Your task to perform on an android device: Open Google Chrome Image 0: 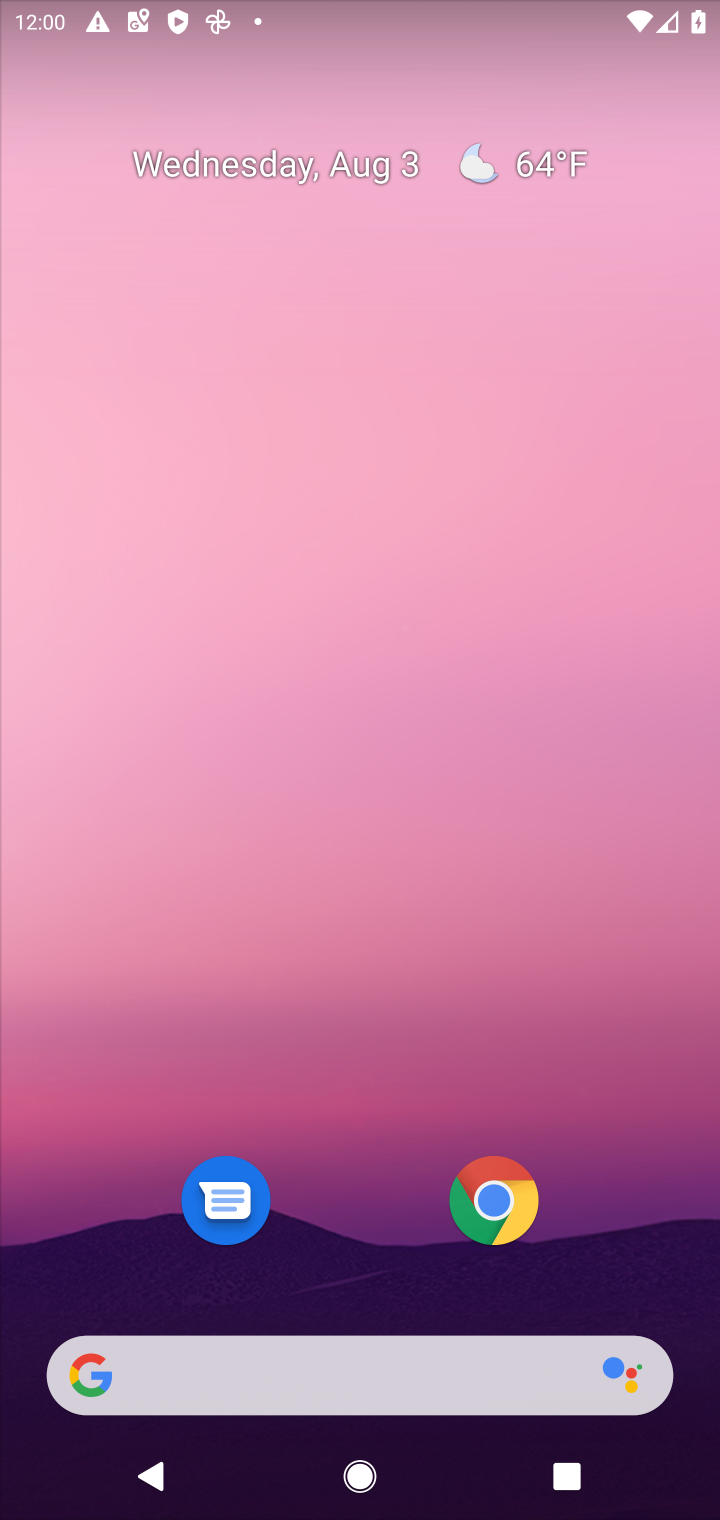
Step 0: click (492, 1204)
Your task to perform on an android device: Open Google Chrome Image 1: 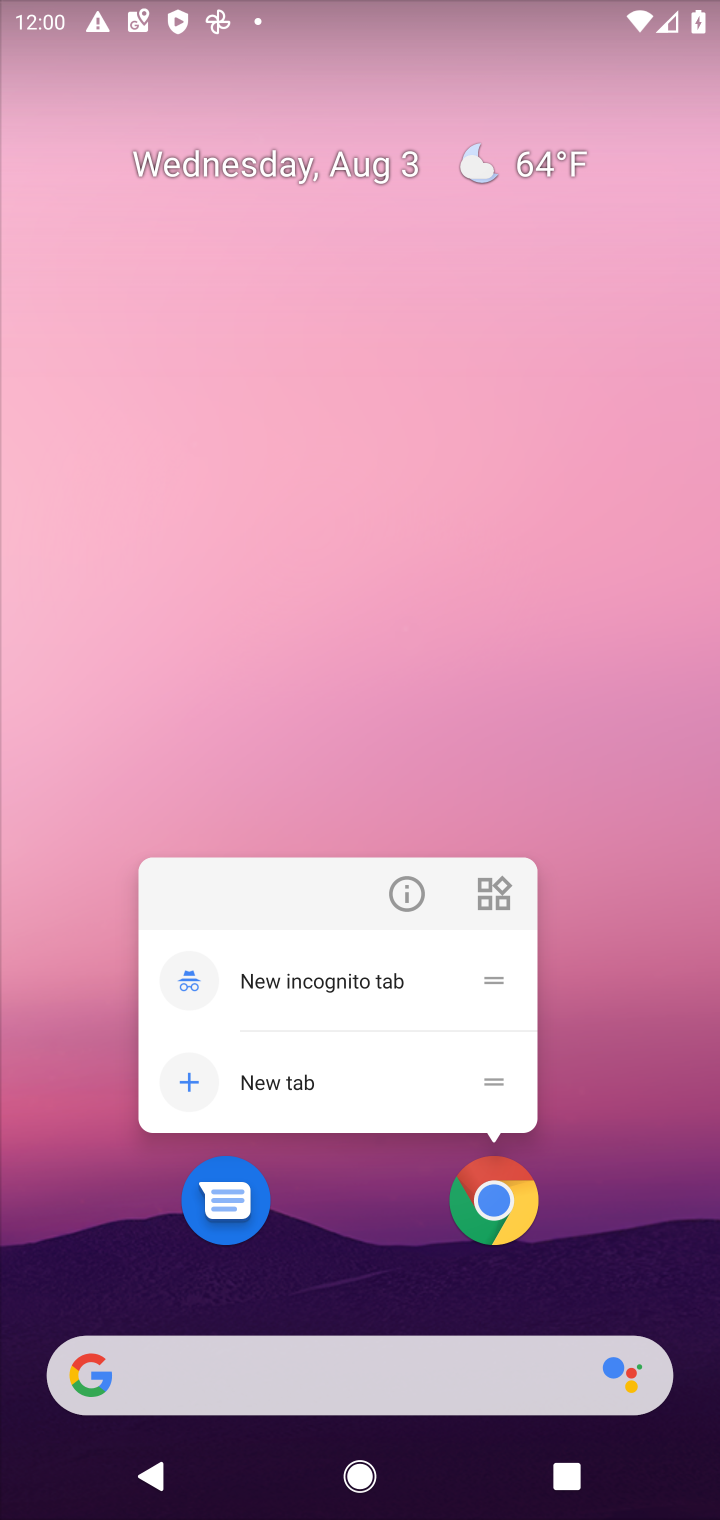
Step 1: click (496, 1201)
Your task to perform on an android device: Open Google Chrome Image 2: 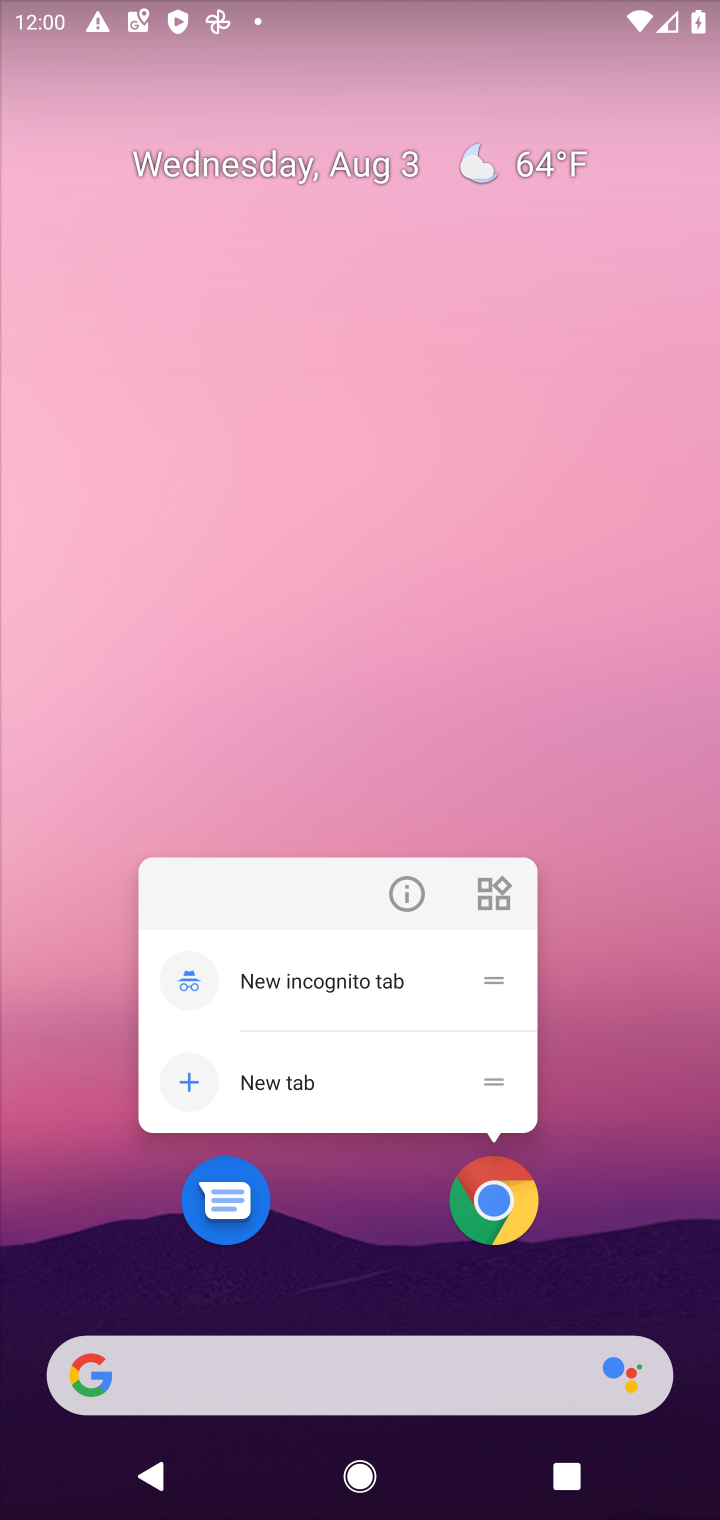
Step 2: click (500, 1198)
Your task to perform on an android device: Open Google Chrome Image 3: 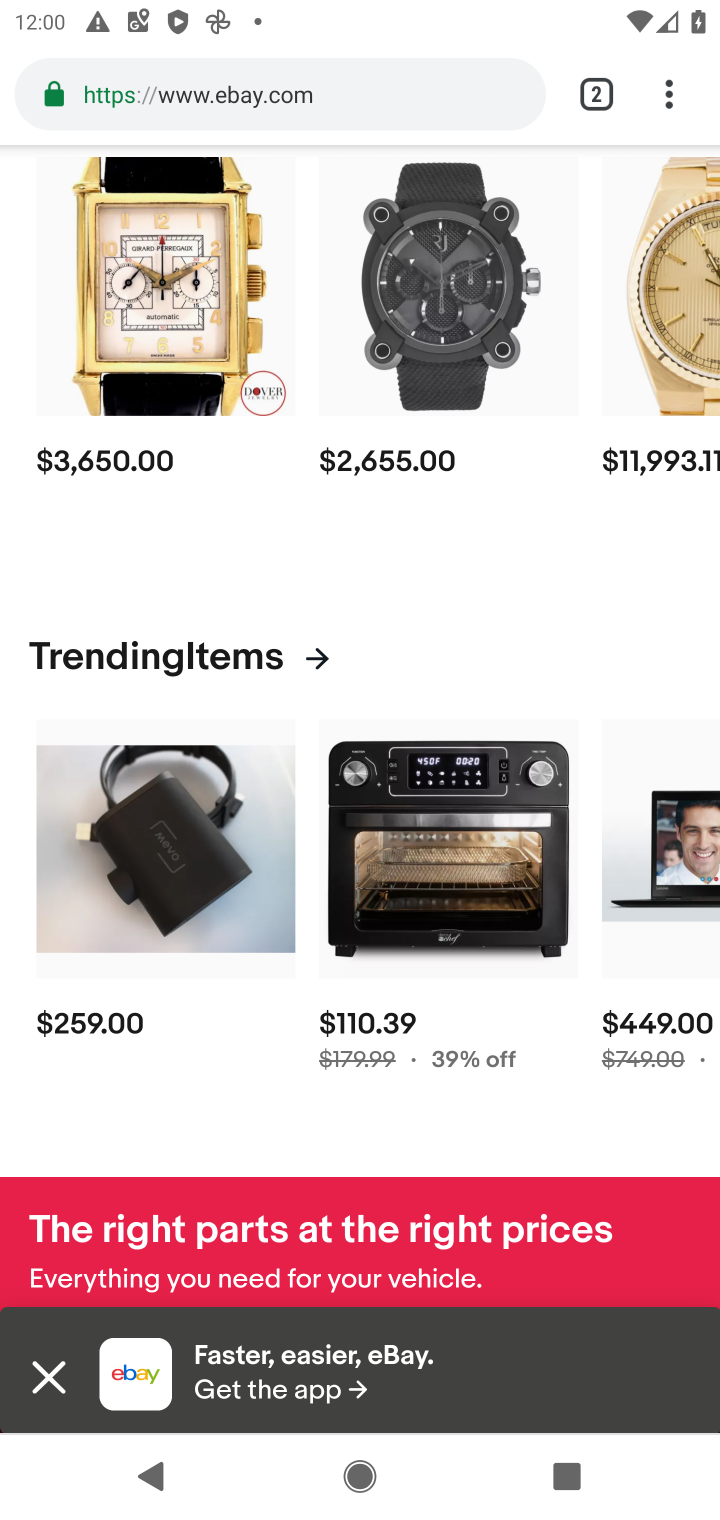
Step 3: task complete